Your task to perform on an android device: Open calendar and show me the third week of next month Image 0: 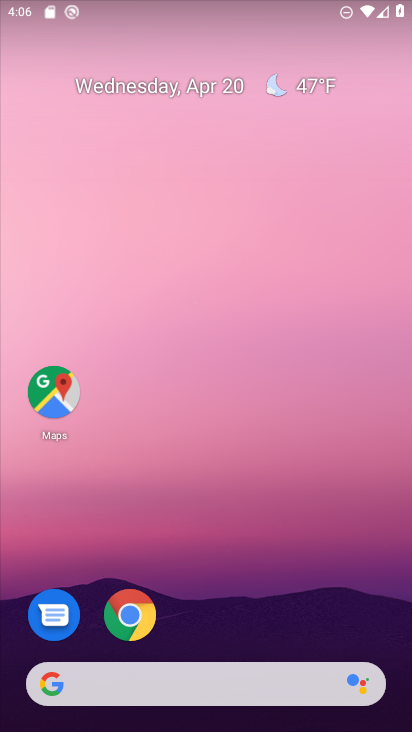
Step 0: drag from (282, 566) to (277, 151)
Your task to perform on an android device: Open calendar and show me the third week of next month Image 1: 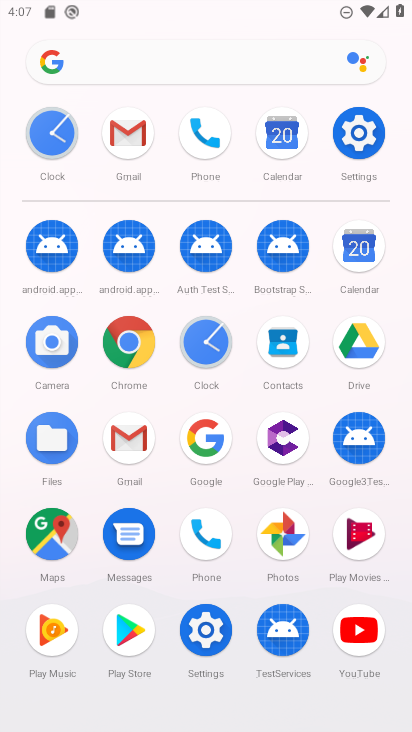
Step 1: click (360, 256)
Your task to perform on an android device: Open calendar and show me the third week of next month Image 2: 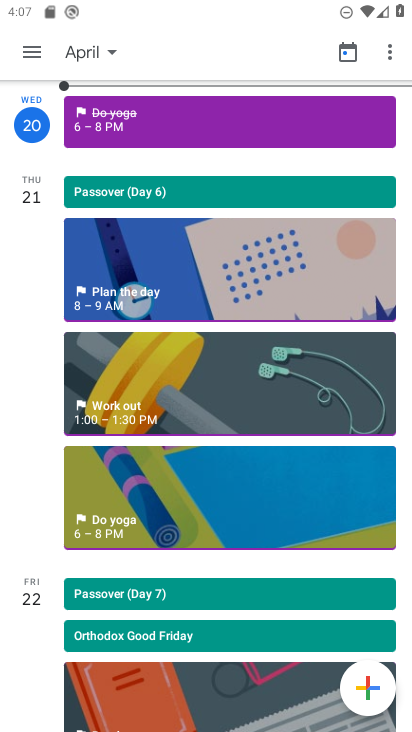
Step 2: click (103, 51)
Your task to perform on an android device: Open calendar and show me the third week of next month Image 3: 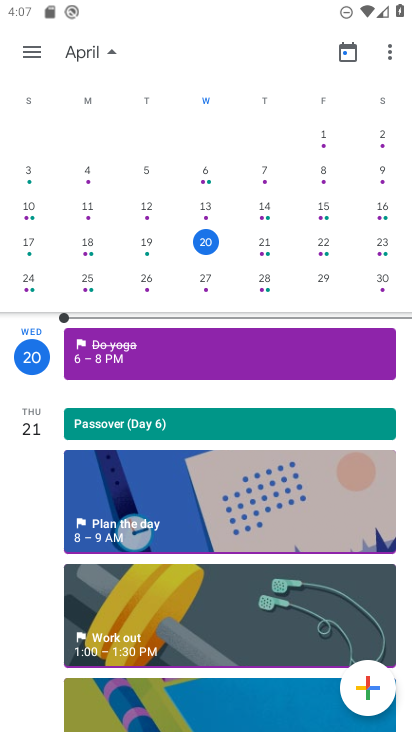
Step 3: drag from (363, 203) to (0, 176)
Your task to perform on an android device: Open calendar and show me the third week of next month Image 4: 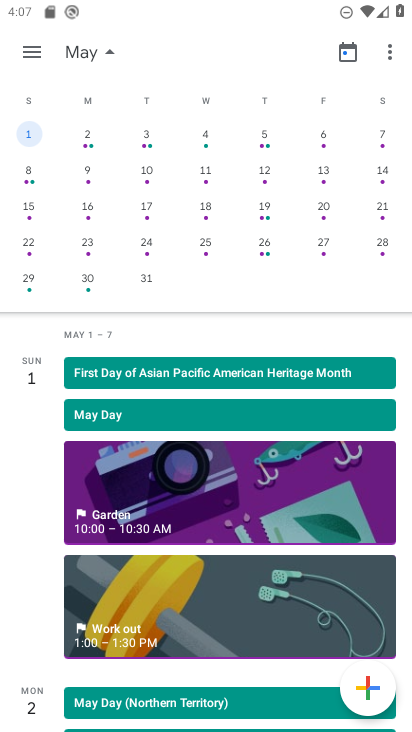
Step 4: click (27, 210)
Your task to perform on an android device: Open calendar and show me the third week of next month Image 5: 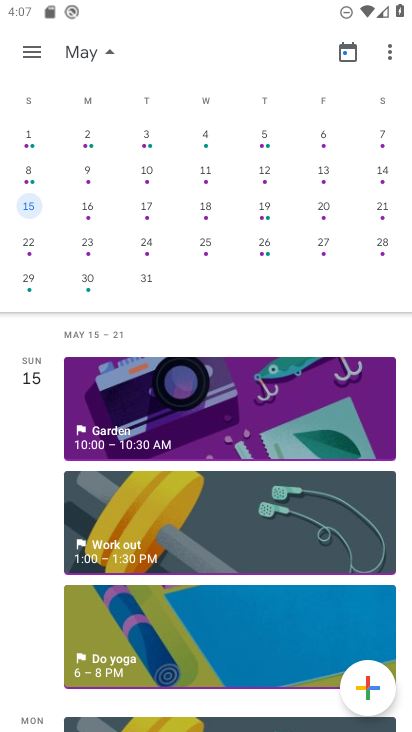
Step 5: click (35, 53)
Your task to perform on an android device: Open calendar and show me the third week of next month Image 6: 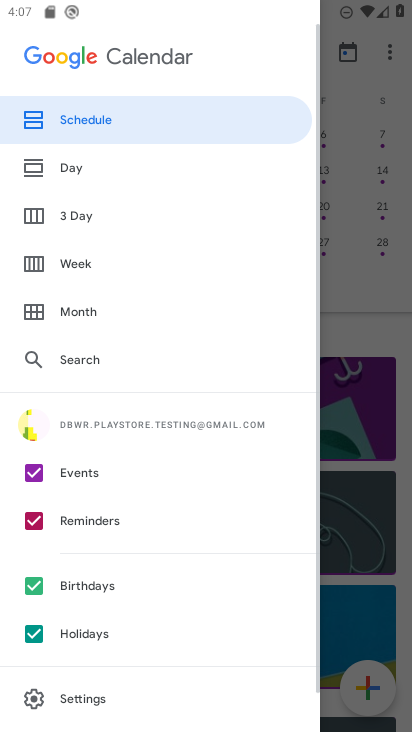
Step 6: click (70, 264)
Your task to perform on an android device: Open calendar and show me the third week of next month Image 7: 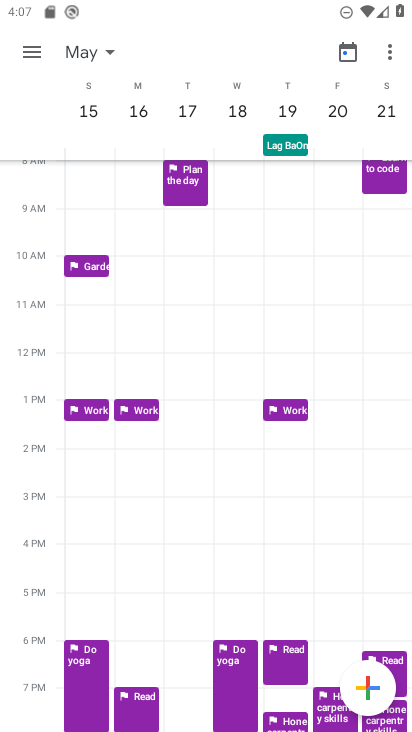
Step 7: task complete